Your task to perform on an android device: Search for "dell alienware" on costco.com, select the first entry, and add it to the cart. Image 0: 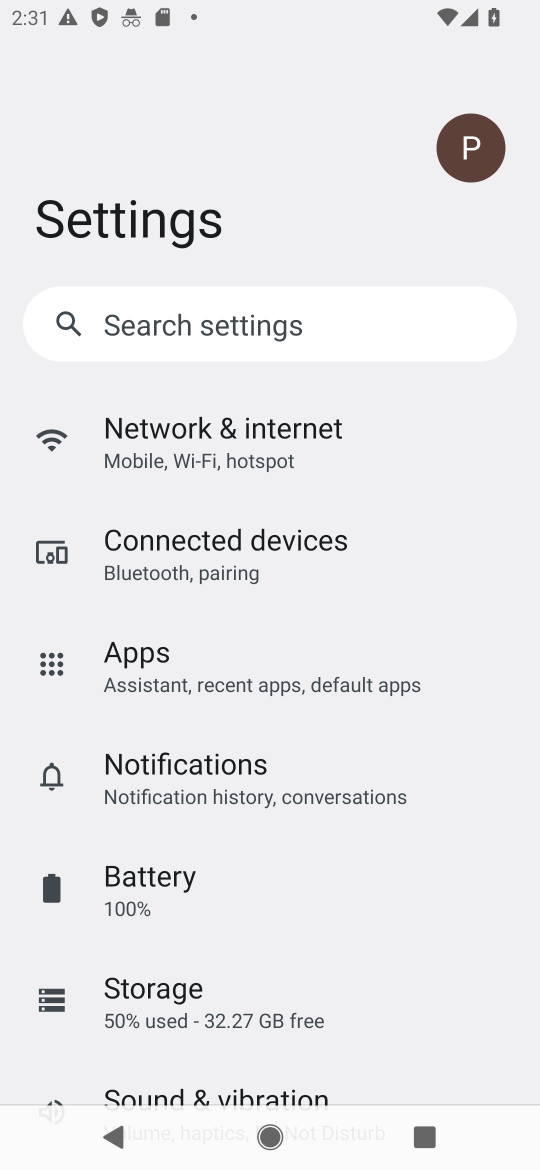
Step 0: press home button
Your task to perform on an android device: Search for "dell alienware" on costco.com, select the first entry, and add it to the cart. Image 1: 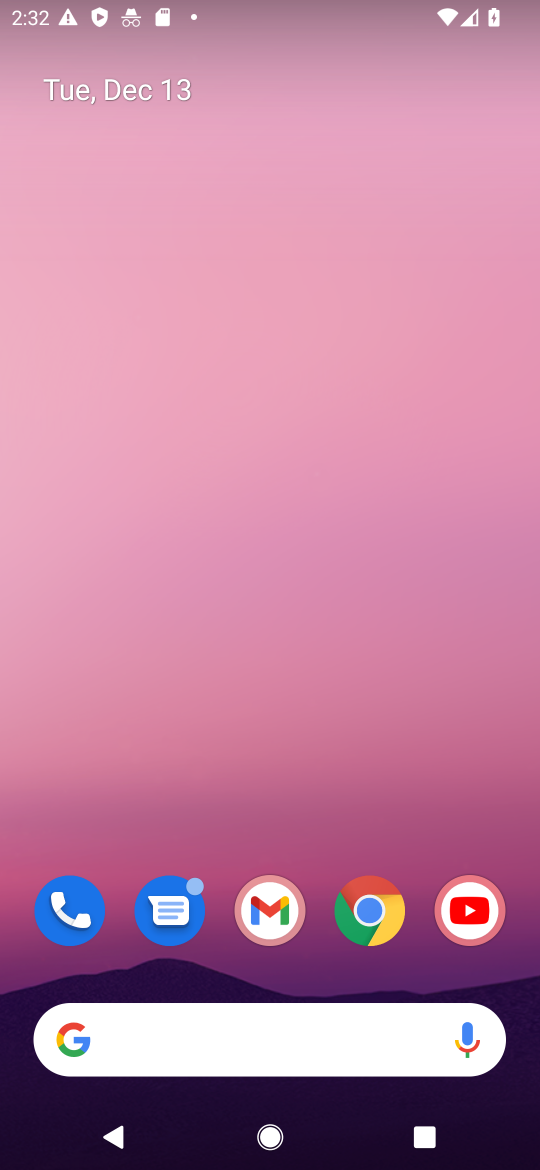
Step 1: click (368, 891)
Your task to perform on an android device: Search for "dell alienware" on costco.com, select the first entry, and add it to the cart. Image 2: 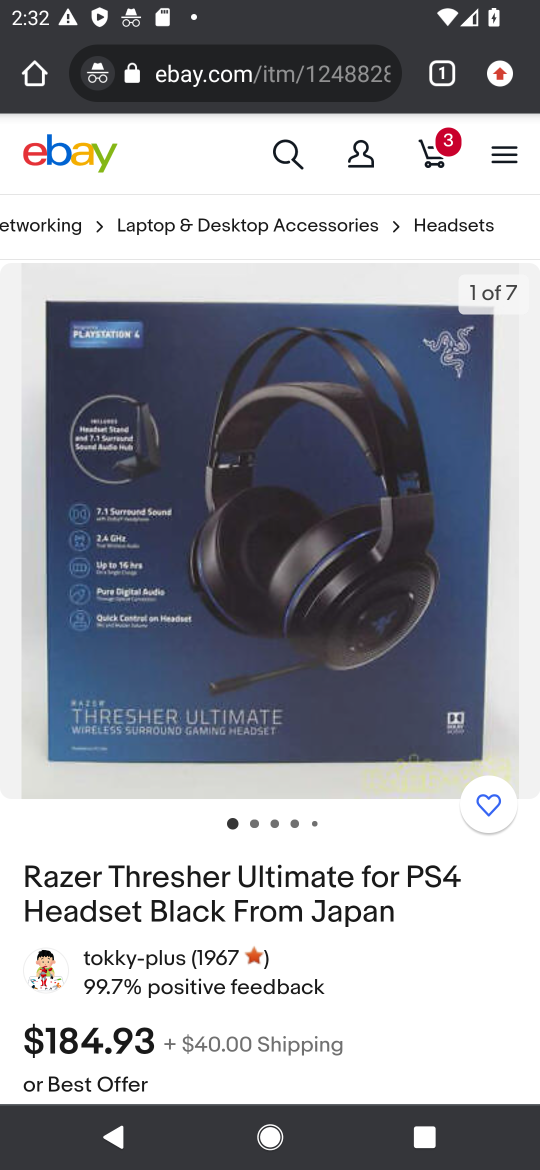
Step 2: click (255, 84)
Your task to perform on an android device: Search for "dell alienware" on costco.com, select the first entry, and add it to the cart. Image 3: 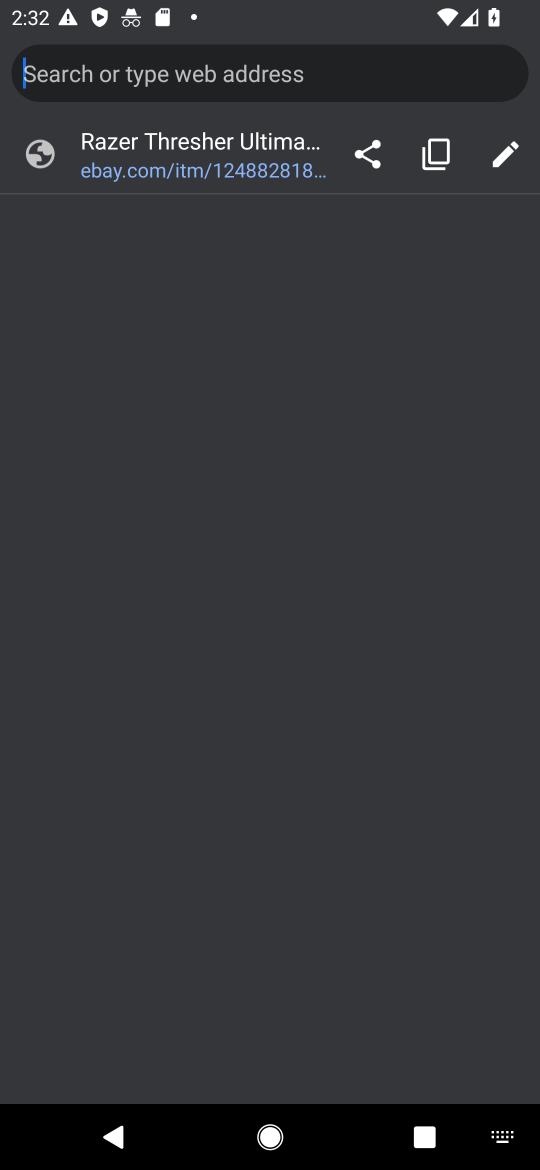
Step 3: type "COSTCO"
Your task to perform on an android device: Search for "dell alienware" on costco.com, select the first entry, and add it to the cart. Image 4: 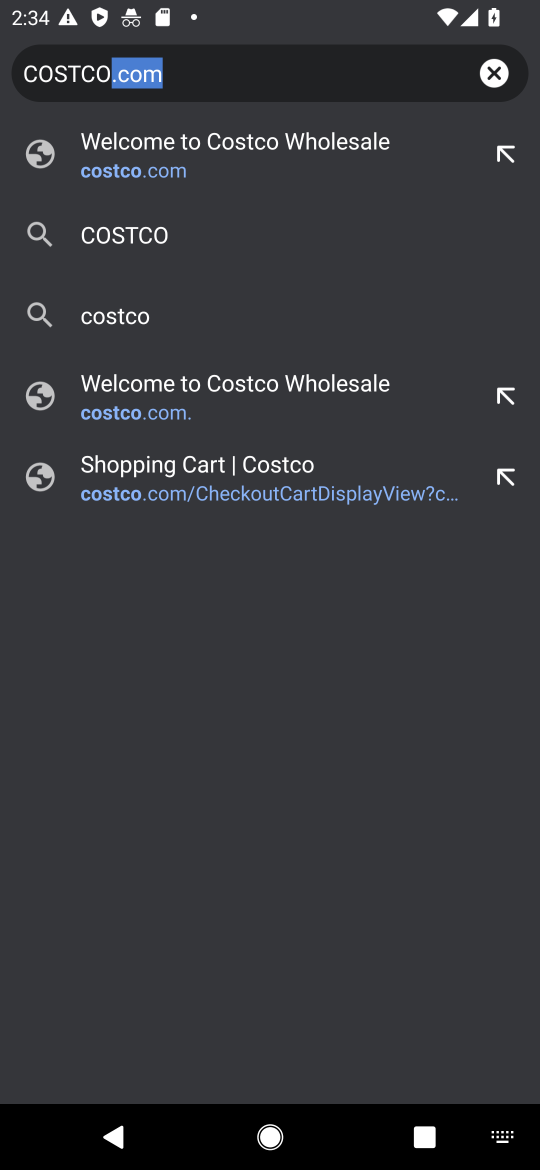
Step 4: click (199, 162)
Your task to perform on an android device: Search for "dell alienware" on costco.com, select the first entry, and add it to the cart. Image 5: 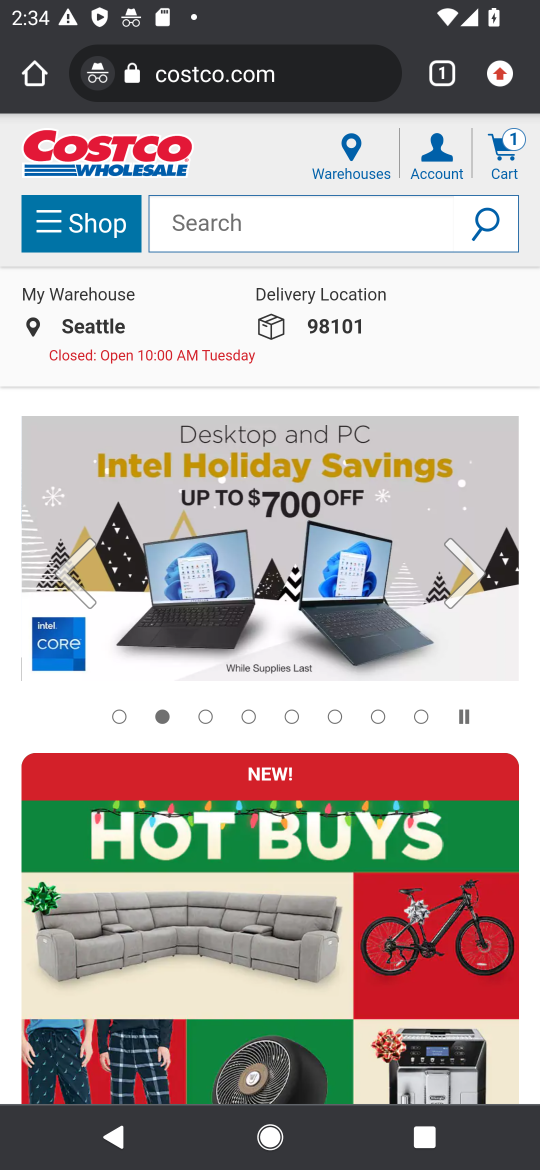
Step 5: click (353, 235)
Your task to perform on an android device: Search for "dell alienware" on costco.com, select the first entry, and add it to the cart. Image 6: 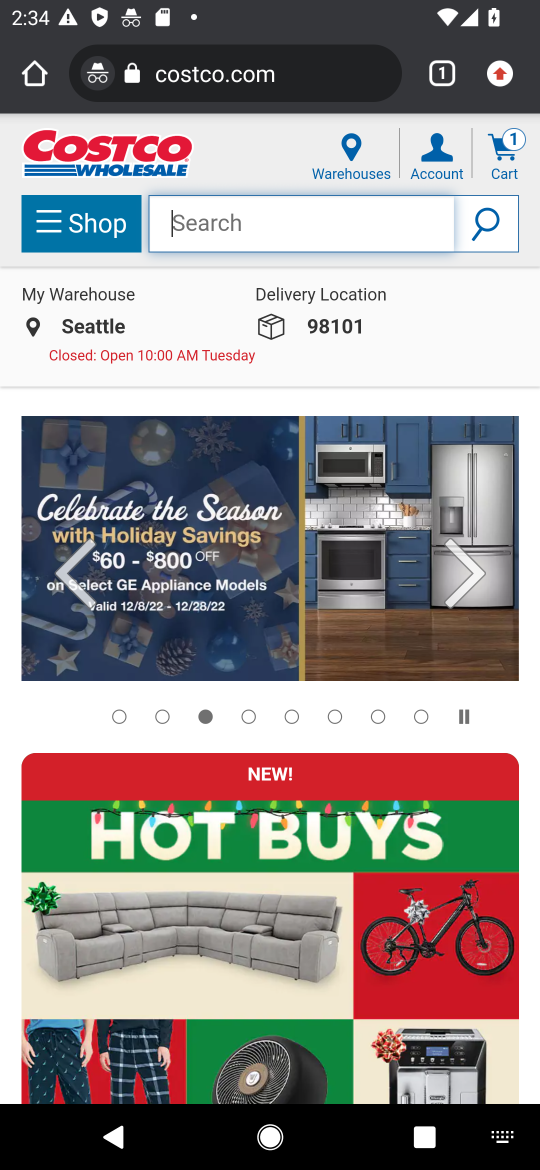
Step 6: type "DELL ALIENWARE"
Your task to perform on an android device: Search for "dell alienware" on costco.com, select the first entry, and add it to the cart. Image 7: 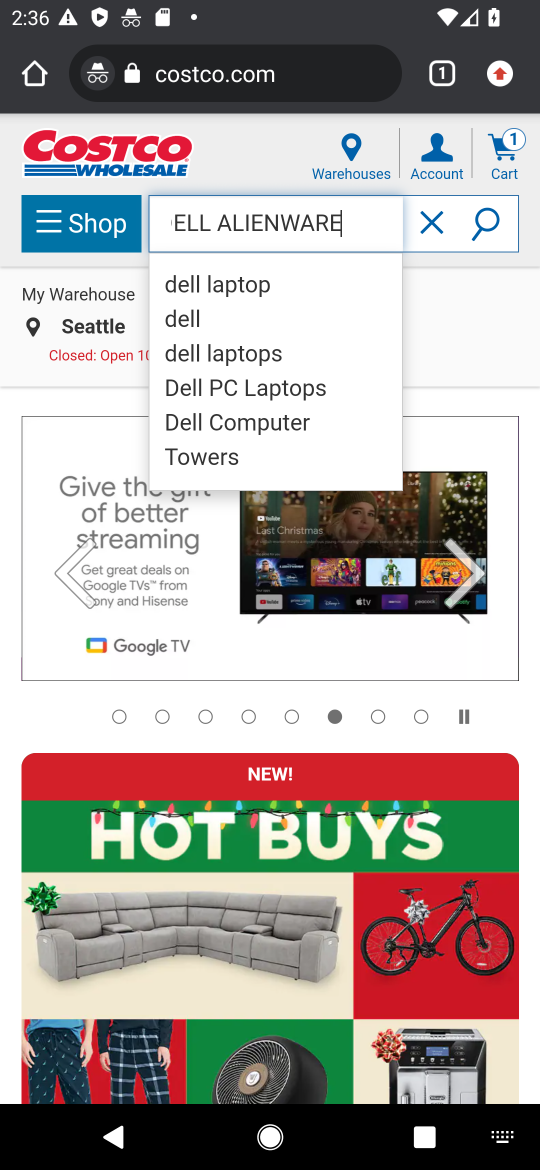
Step 7: click (251, 285)
Your task to perform on an android device: Search for "dell alienware" on costco.com, select the first entry, and add it to the cart. Image 8: 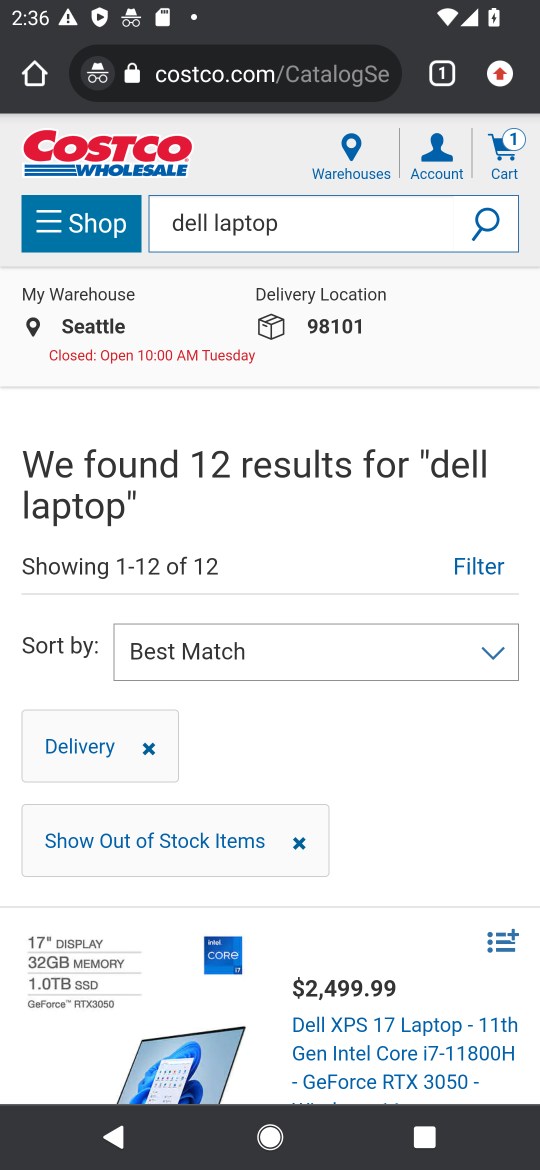
Step 8: click (428, 1017)
Your task to perform on an android device: Search for "dell alienware" on costco.com, select the first entry, and add it to the cart. Image 9: 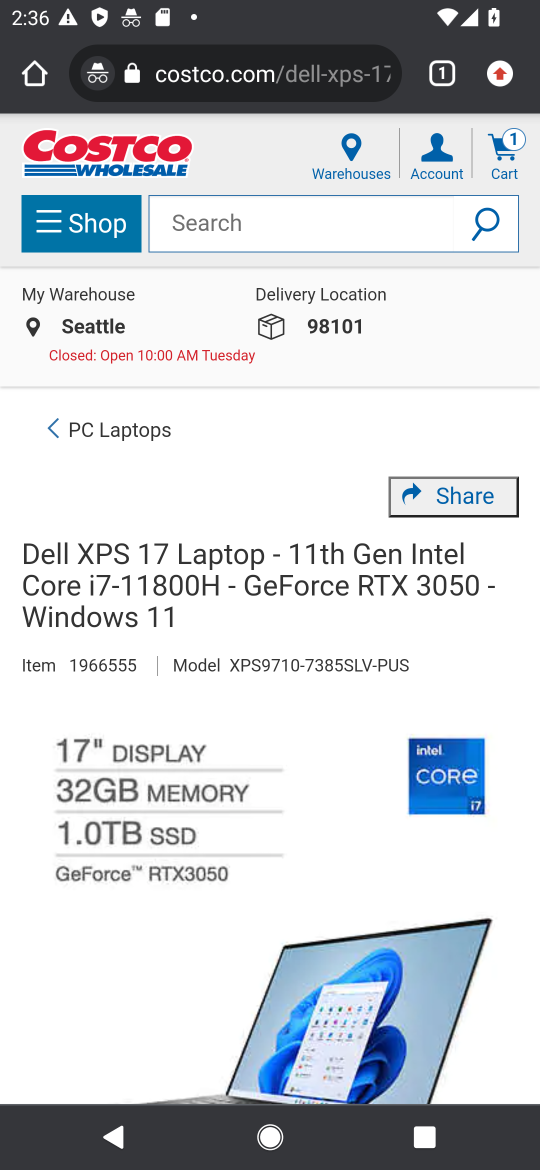
Step 9: drag from (372, 850) to (348, 240)
Your task to perform on an android device: Search for "dell alienware" on costco.com, select the first entry, and add it to the cart. Image 10: 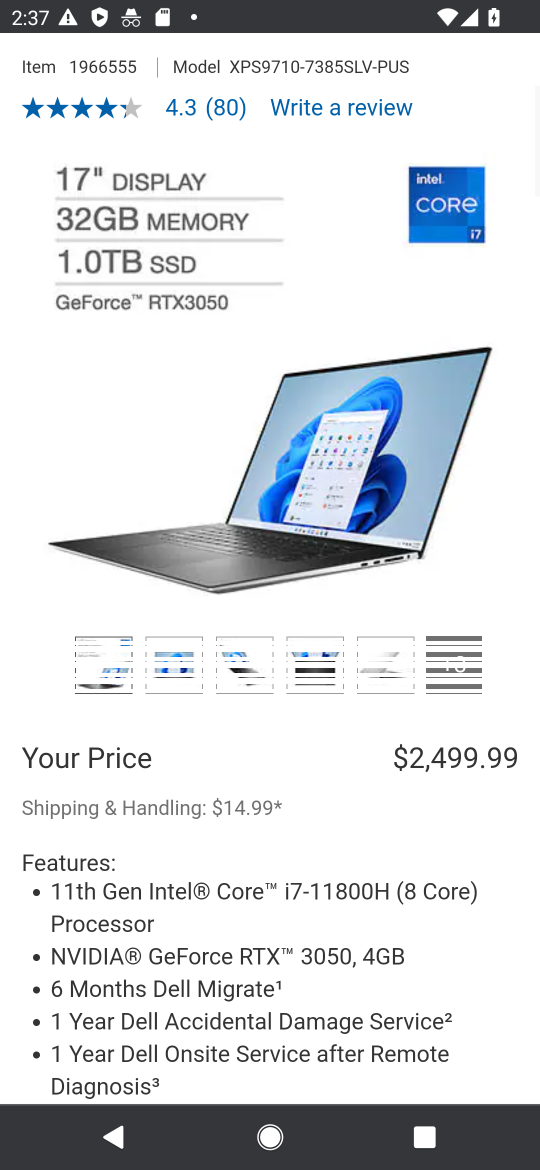
Step 10: drag from (386, 1012) to (359, 288)
Your task to perform on an android device: Search for "dell alienware" on costco.com, select the first entry, and add it to the cart. Image 11: 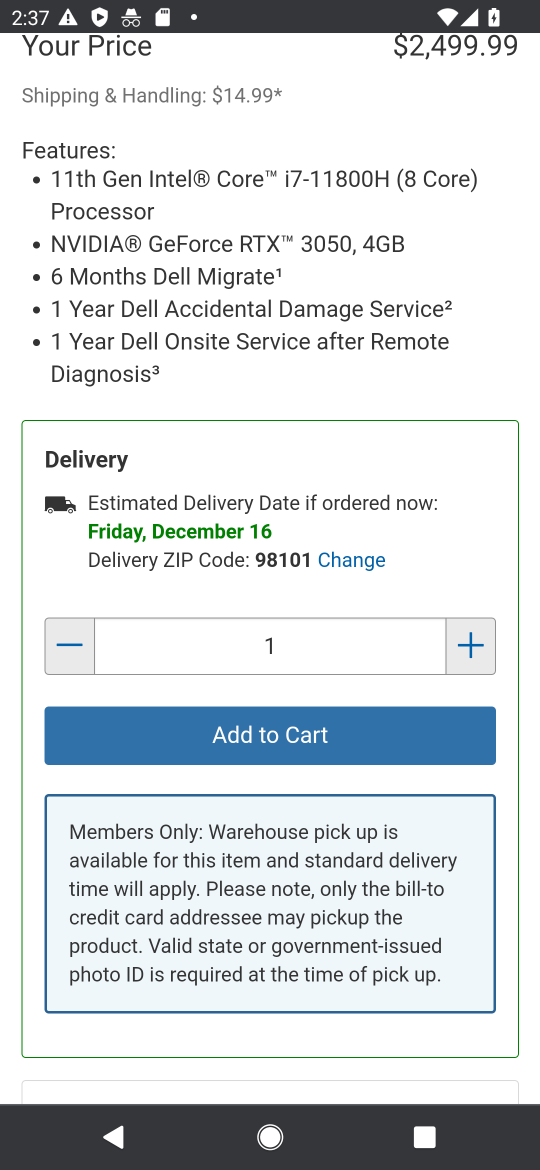
Step 11: click (250, 732)
Your task to perform on an android device: Search for "dell alienware" on costco.com, select the first entry, and add it to the cart. Image 12: 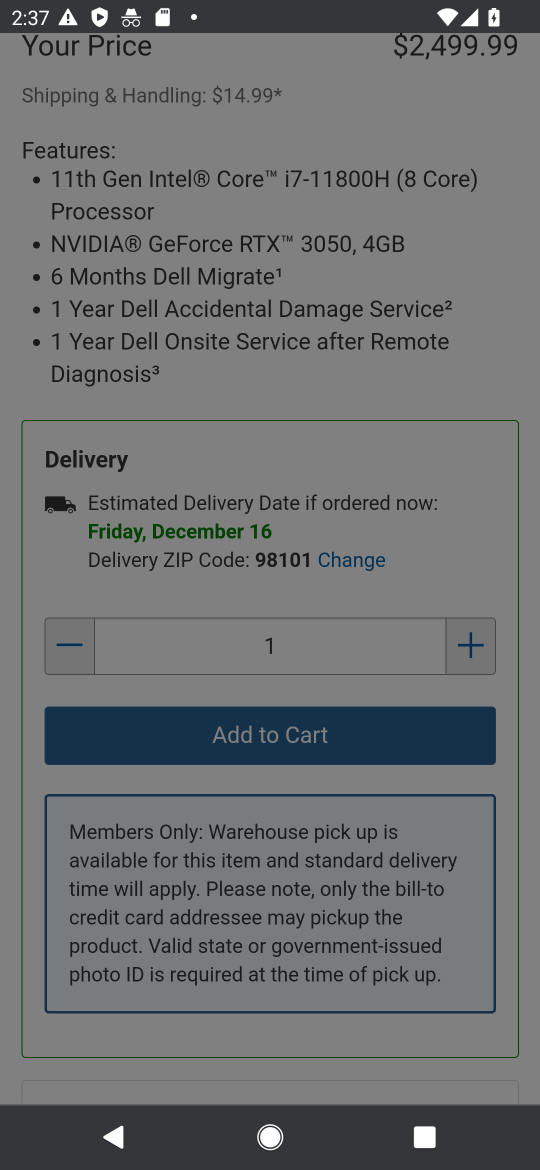
Step 12: task complete